Your task to perform on an android device: When is my next meeting? Image 0: 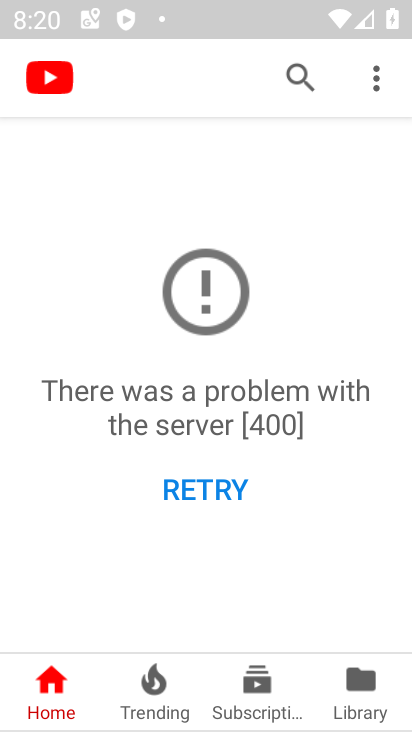
Step 0: press back button
Your task to perform on an android device: When is my next meeting? Image 1: 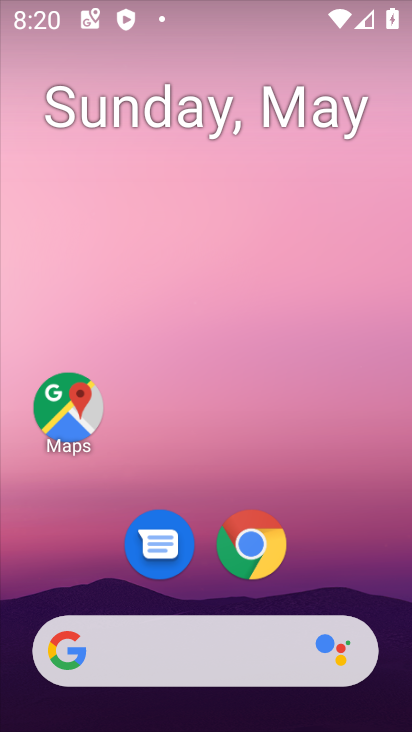
Step 1: drag from (324, 612) to (231, 32)
Your task to perform on an android device: When is my next meeting? Image 2: 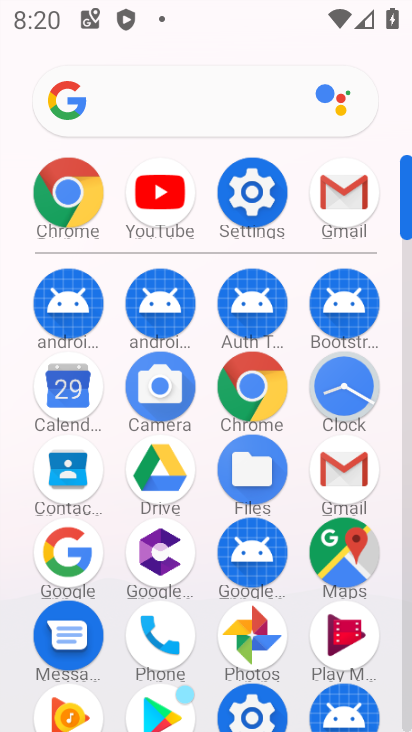
Step 2: drag from (16, 539) to (10, 226)
Your task to perform on an android device: When is my next meeting? Image 3: 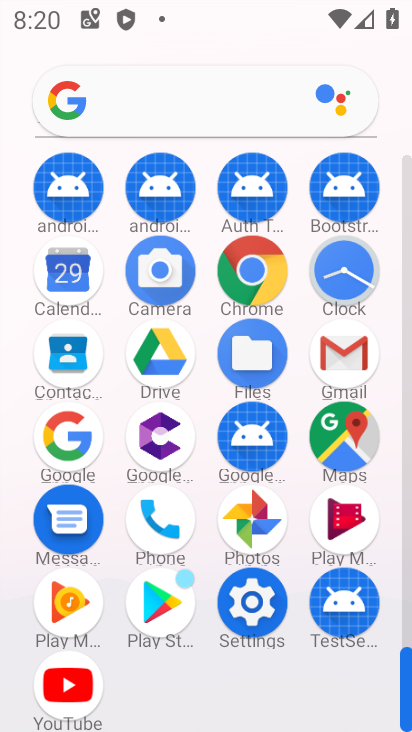
Step 3: drag from (4, 568) to (19, 305)
Your task to perform on an android device: When is my next meeting? Image 4: 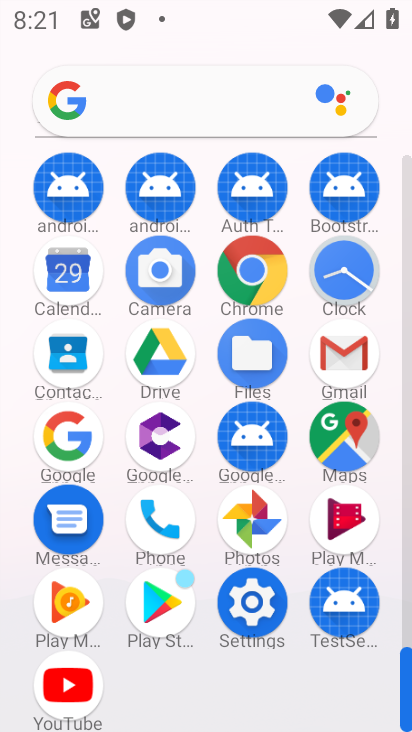
Step 4: click (67, 264)
Your task to perform on an android device: When is my next meeting? Image 5: 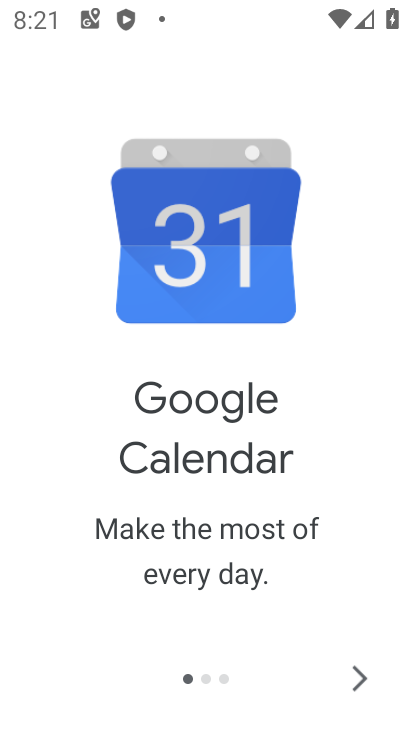
Step 5: click (359, 690)
Your task to perform on an android device: When is my next meeting? Image 6: 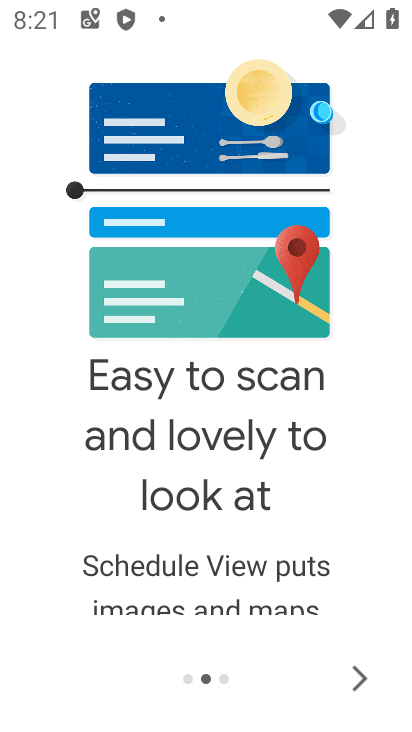
Step 6: click (355, 678)
Your task to perform on an android device: When is my next meeting? Image 7: 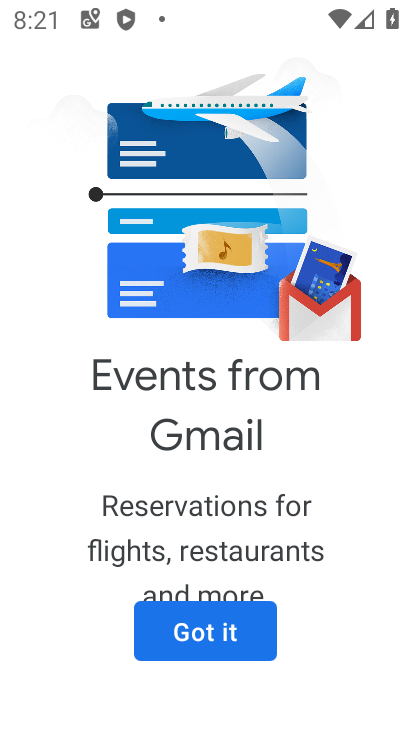
Step 7: click (243, 626)
Your task to perform on an android device: When is my next meeting? Image 8: 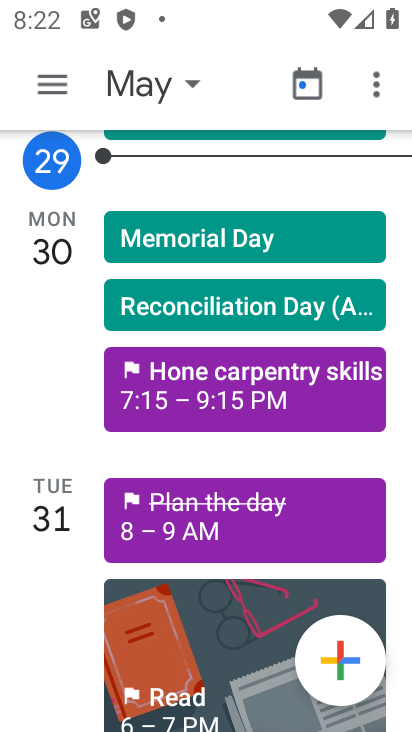
Step 8: click (175, 84)
Your task to perform on an android device: When is my next meeting? Image 9: 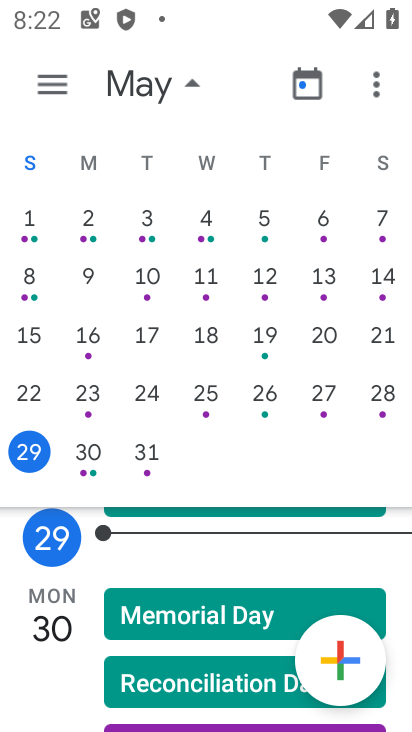
Step 9: click (54, 76)
Your task to perform on an android device: When is my next meeting? Image 10: 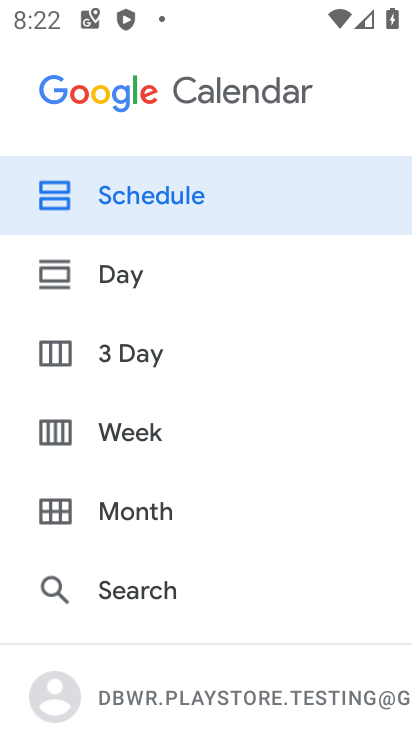
Step 10: click (156, 193)
Your task to perform on an android device: When is my next meeting? Image 11: 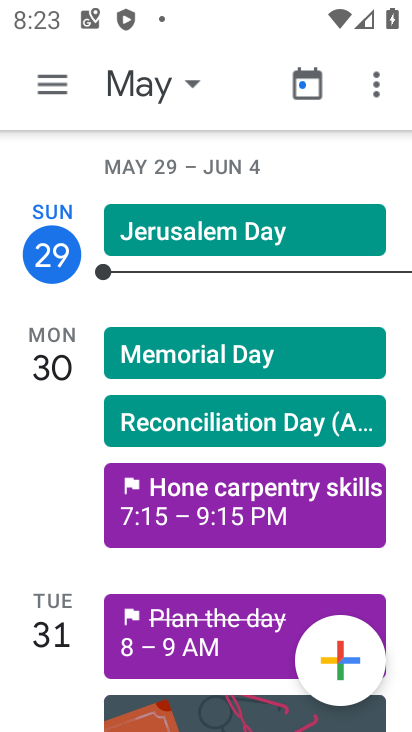
Step 11: task complete